Your task to perform on an android device: turn notification dots on Image 0: 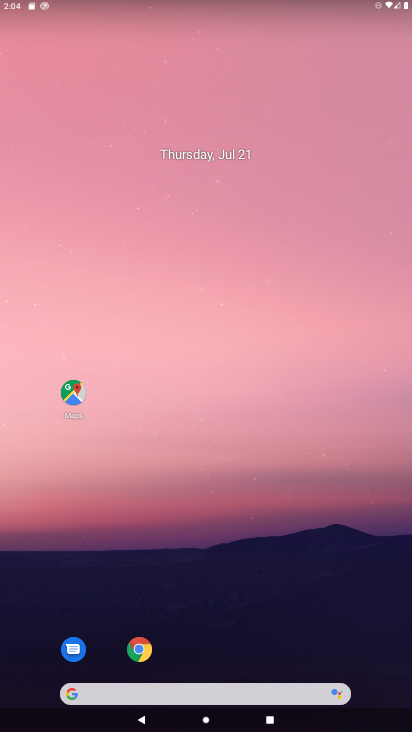
Step 0: drag from (256, 516) to (304, 15)
Your task to perform on an android device: turn notification dots on Image 1: 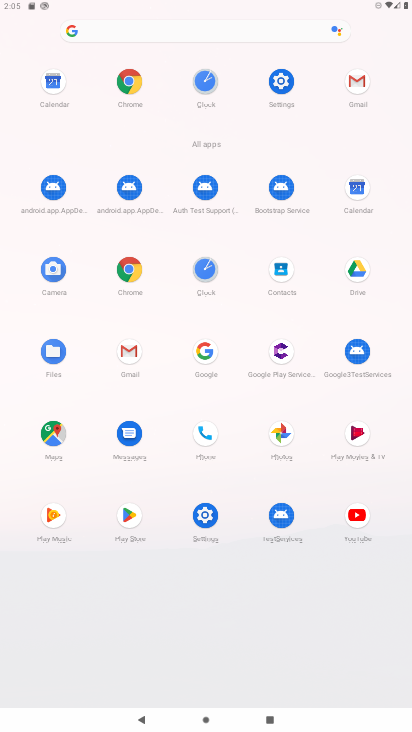
Step 1: click (275, 70)
Your task to perform on an android device: turn notification dots on Image 2: 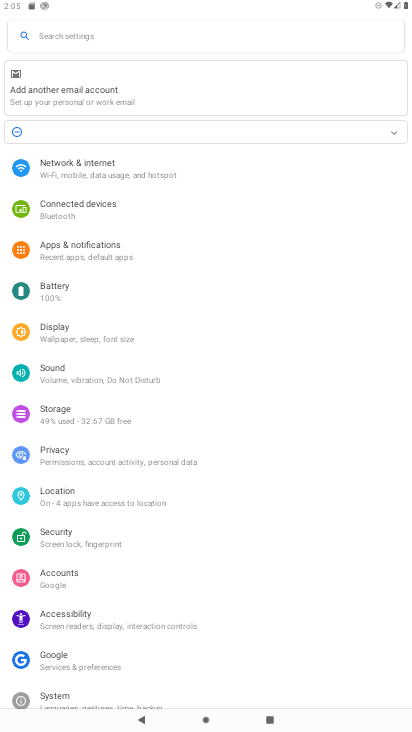
Step 2: click (77, 254)
Your task to perform on an android device: turn notification dots on Image 3: 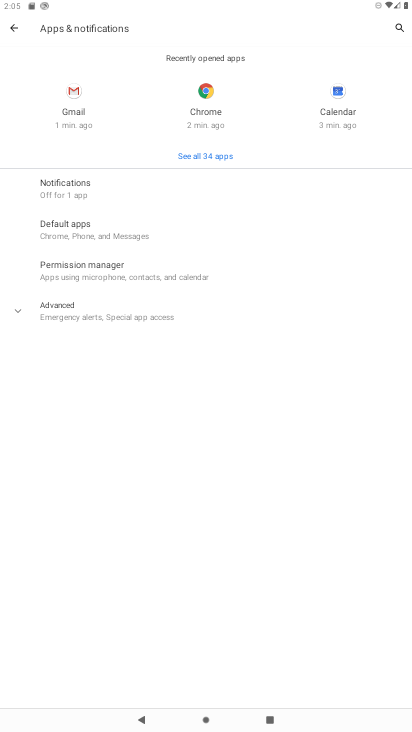
Step 3: click (72, 323)
Your task to perform on an android device: turn notification dots on Image 4: 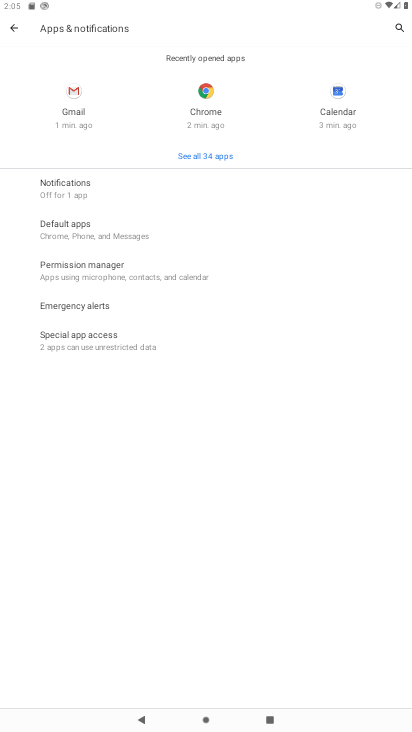
Step 4: click (45, 193)
Your task to perform on an android device: turn notification dots on Image 5: 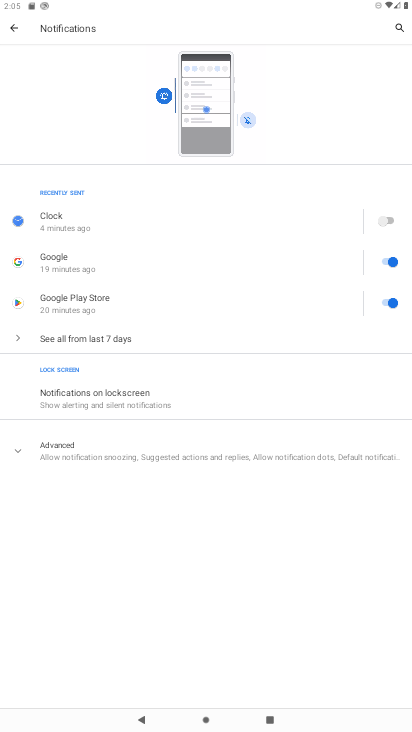
Step 5: click (98, 447)
Your task to perform on an android device: turn notification dots on Image 6: 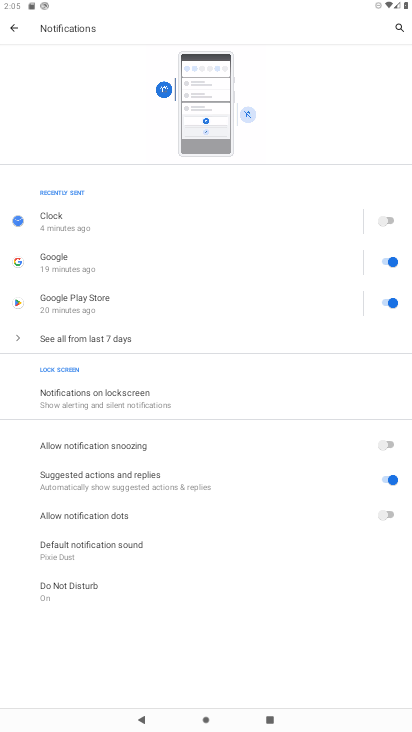
Step 6: click (386, 509)
Your task to perform on an android device: turn notification dots on Image 7: 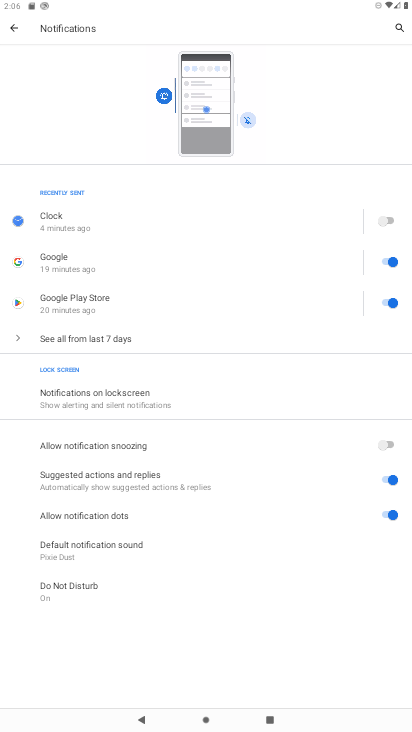
Step 7: task complete